Your task to perform on an android device: Open Google Chrome and open the bookmarks view Image 0: 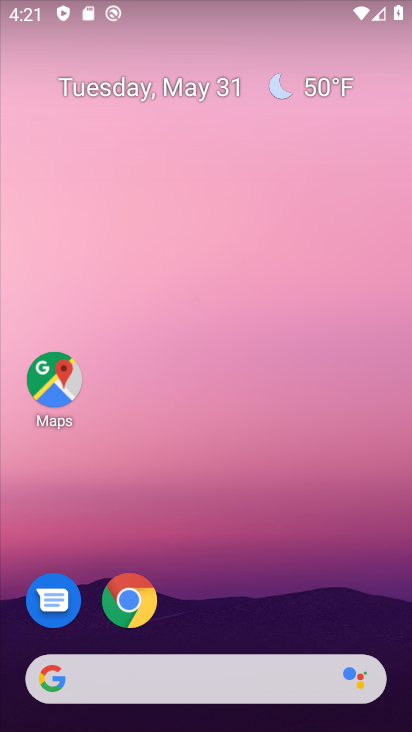
Step 0: click (129, 598)
Your task to perform on an android device: Open Google Chrome and open the bookmarks view Image 1: 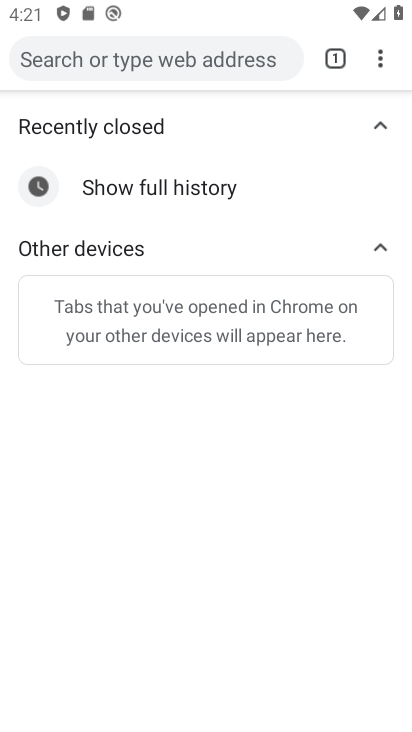
Step 1: click (380, 59)
Your task to perform on an android device: Open Google Chrome and open the bookmarks view Image 2: 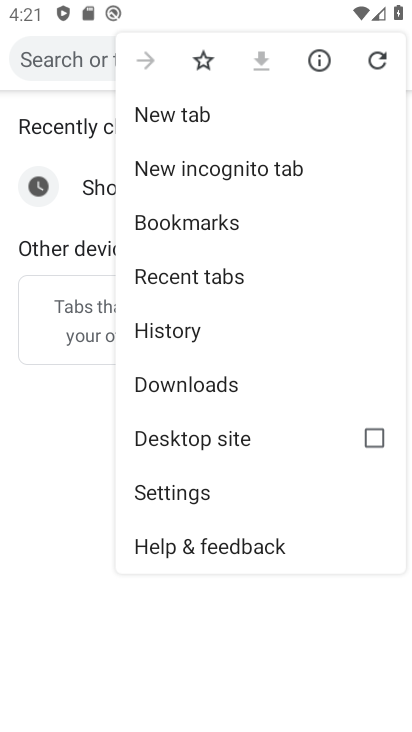
Step 2: click (211, 220)
Your task to perform on an android device: Open Google Chrome and open the bookmarks view Image 3: 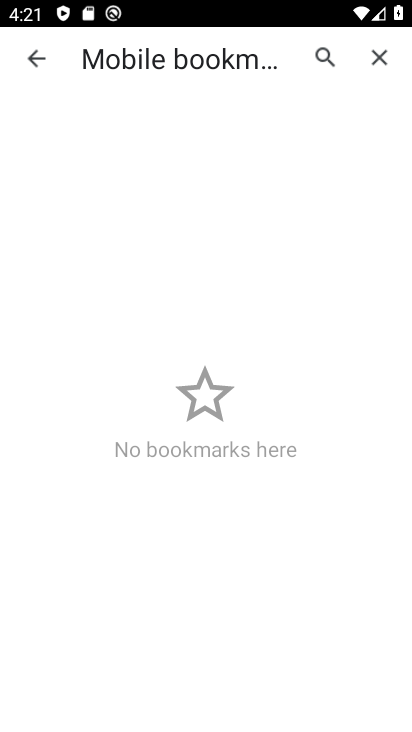
Step 3: task complete